Your task to perform on an android device: turn on javascript in the chrome app Image 0: 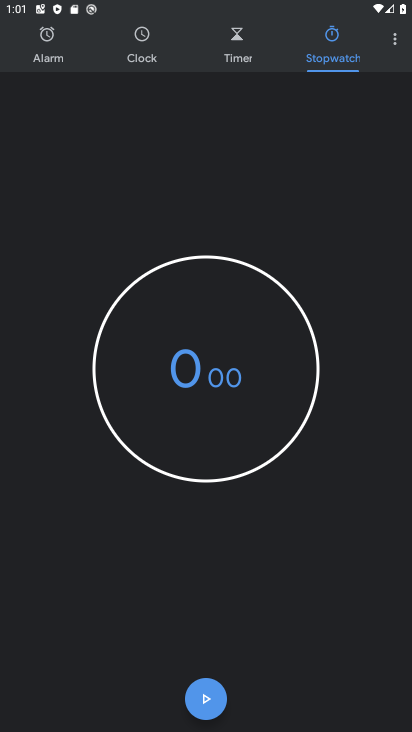
Step 0: press home button
Your task to perform on an android device: turn on javascript in the chrome app Image 1: 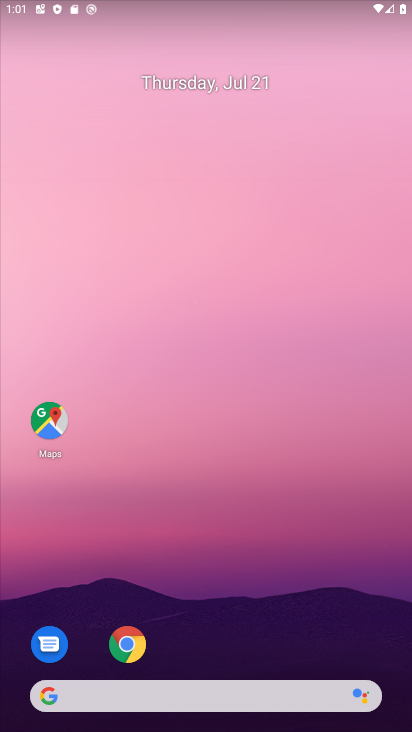
Step 1: drag from (195, 672) to (112, 21)
Your task to perform on an android device: turn on javascript in the chrome app Image 2: 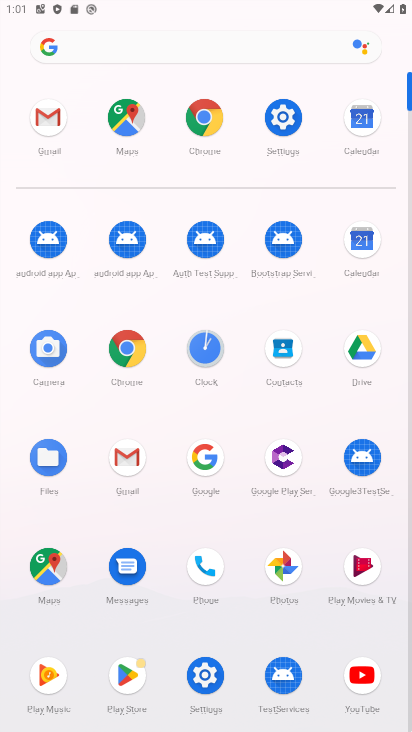
Step 2: click (124, 342)
Your task to perform on an android device: turn on javascript in the chrome app Image 3: 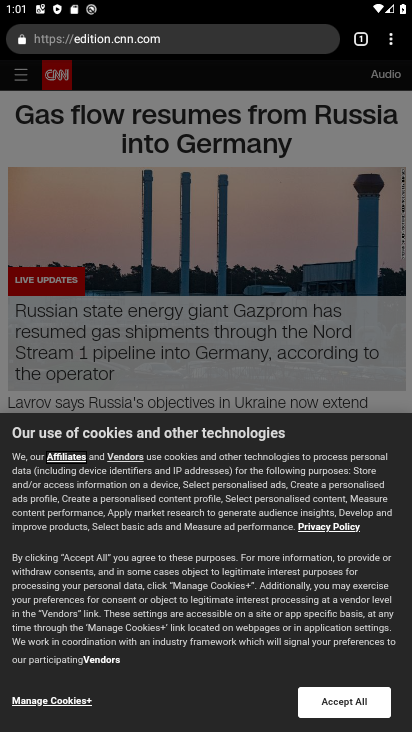
Step 3: drag from (395, 35) to (257, 433)
Your task to perform on an android device: turn on javascript in the chrome app Image 4: 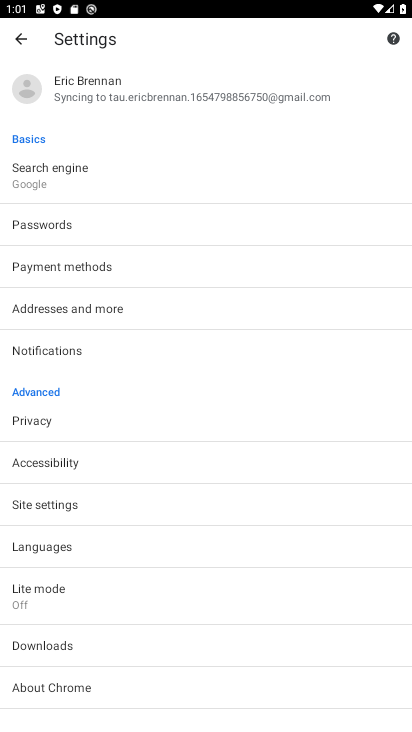
Step 4: click (36, 514)
Your task to perform on an android device: turn on javascript in the chrome app Image 5: 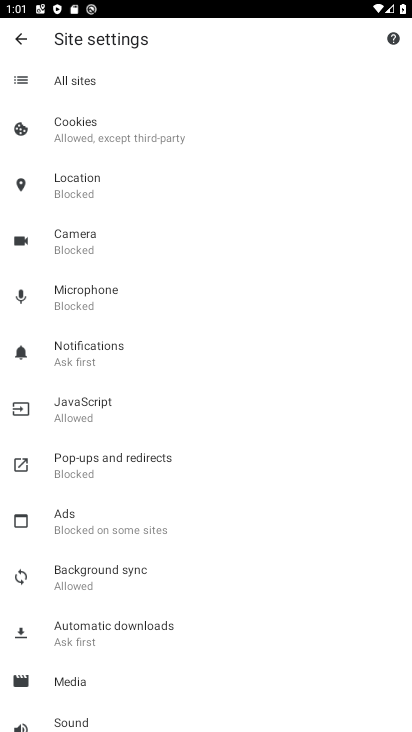
Step 5: click (70, 411)
Your task to perform on an android device: turn on javascript in the chrome app Image 6: 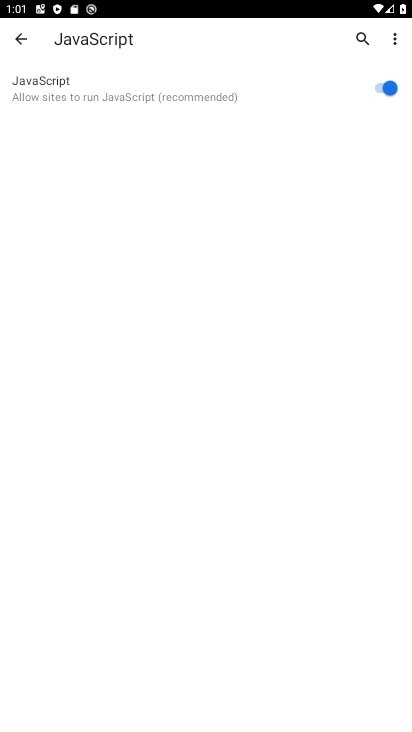
Step 6: task complete